Your task to perform on an android device: toggle show notifications on the lock screen Image 0: 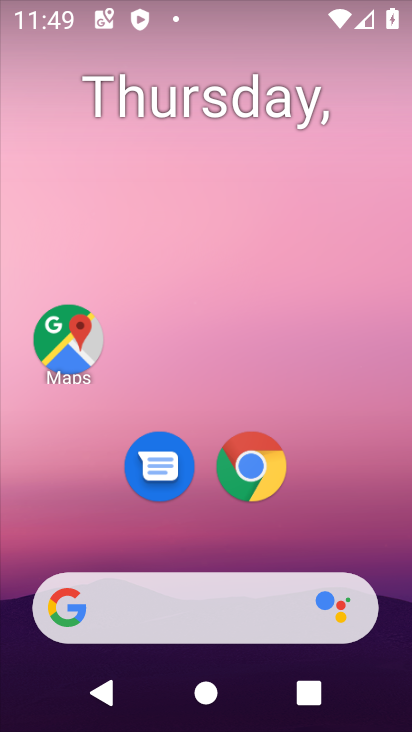
Step 0: drag from (388, 633) to (271, 95)
Your task to perform on an android device: toggle show notifications on the lock screen Image 1: 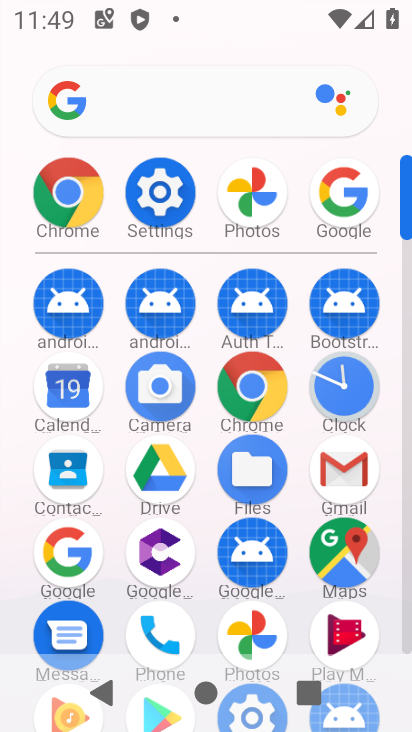
Step 1: click (162, 198)
Your task to perform on an android device: toggle show notifications on the lock screen Image 2: 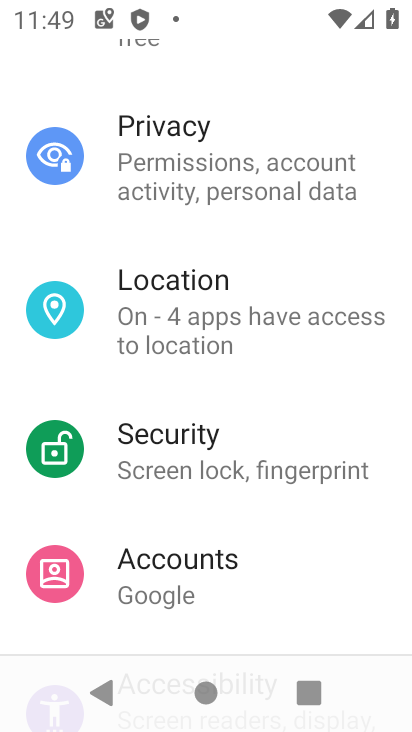
Step 2: drag from (211, 205) to (211, 651)
Your task to perform on an android device: toggle show notifications on the lock screen Image 3: 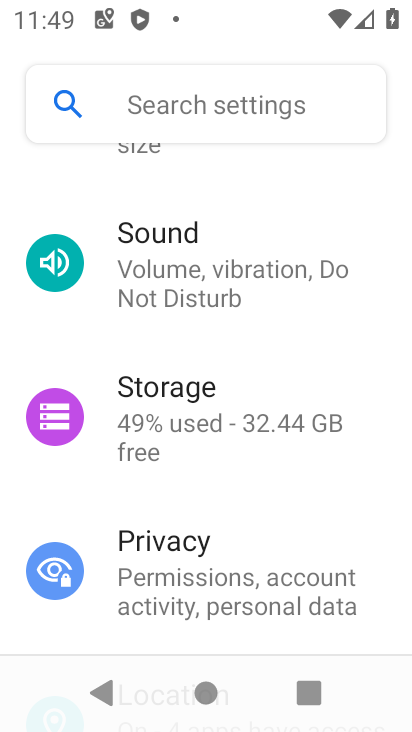
Step 3: drag from (227, 345) to (246, 699)
Your task to perform on an android device: toggle show notifications on the lock screen Image 4: 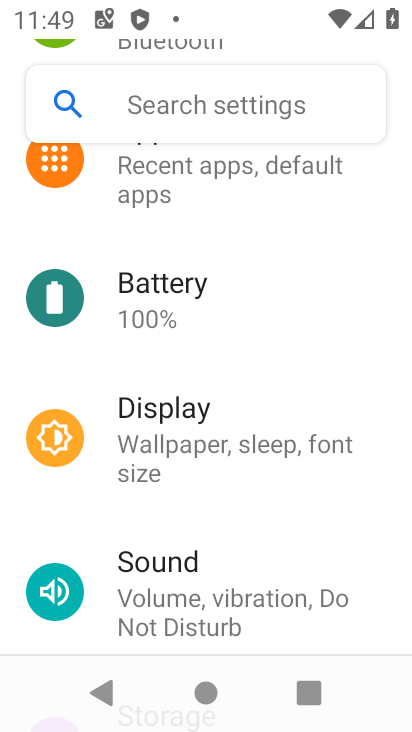
Step 4: drag from (204, 286) to (253, 671)
Your task to perform on an android device: toggle show notifications on the lock screen Image 5: 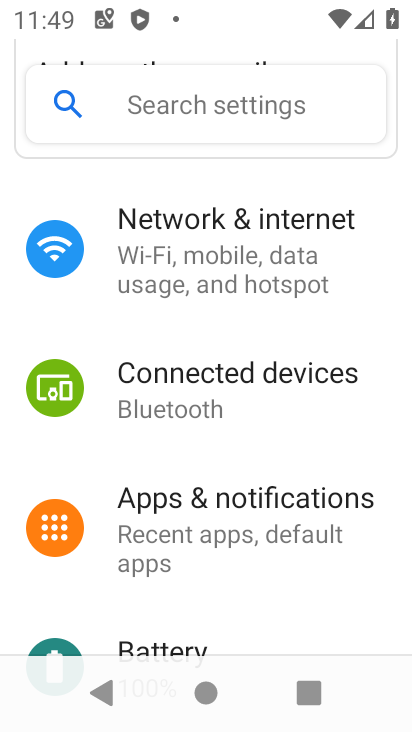
Step 5: click (258, 510)
Your task to perform on an android device: toggle show notifications on the lock screen Image 6: 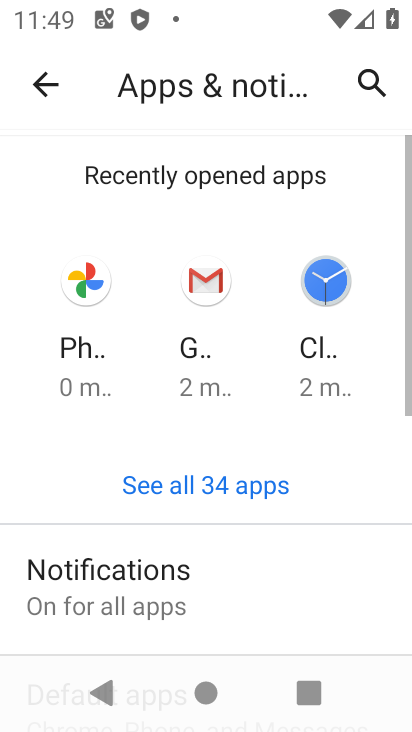
Step 6: click (192, 592)
Your task to perform on an android device: toggle show notifications on the lock screen Image 7: 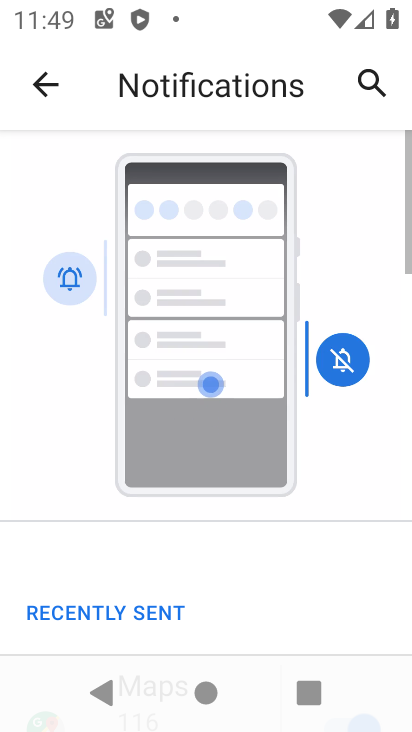
Step 7: drag from (205, 593) to (258, 89)
Your task to perform on an android device: toggle show notifications on the lock screen Image 8: 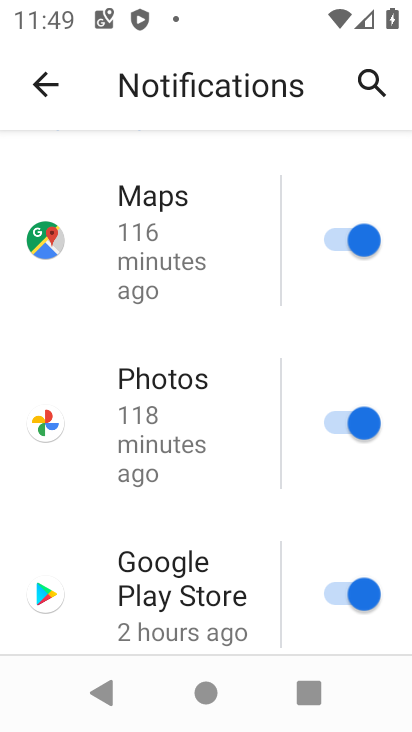
Step 8: drag from (207, 582) to (251, 111)
Your task to perform on an android device: toggle show notifications on the lock screen Image 9: 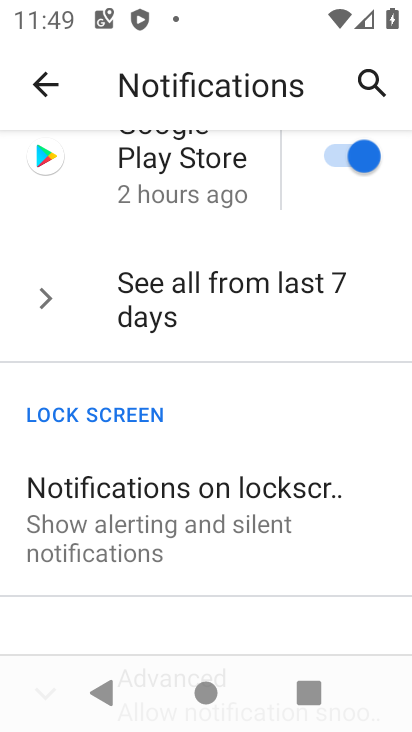
Step 9: click (235, 542)
Your task to perform on an android device: toggle show notifications on the lock screen Image 10: 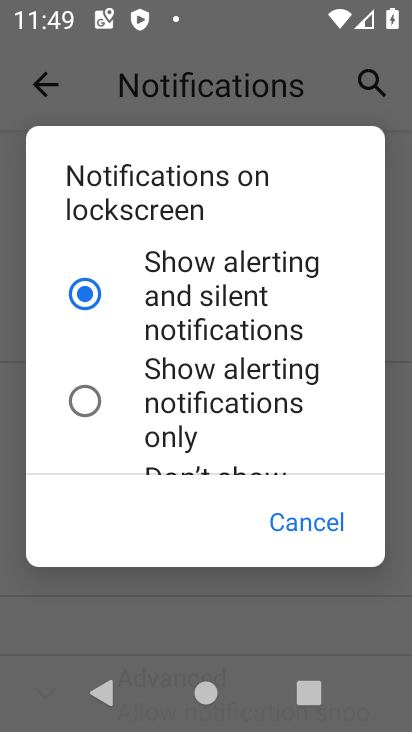
Step 10: drag from (142, 423) to (195, 216)
Your task to perform on an android device: toggle show notifications on the lock screen Image 11: 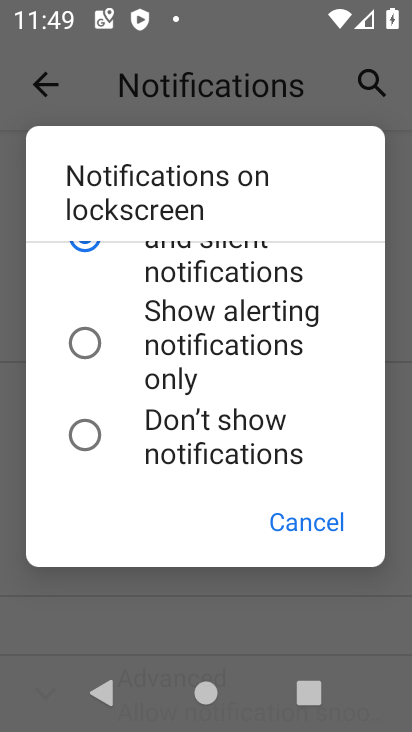
Step 11: click (132, 447)
Your task to perform on an android device: toggle show notifications on the lock screen Image 12: 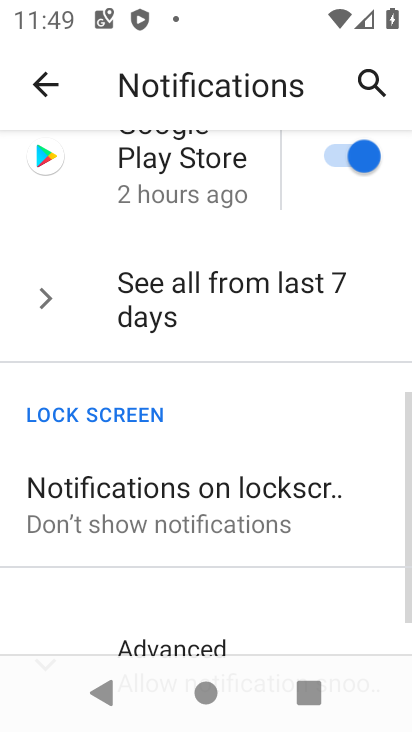
Step 12: task complete